Your task to perform on an android device: turn on showing notifications on the lock screen Image 0: 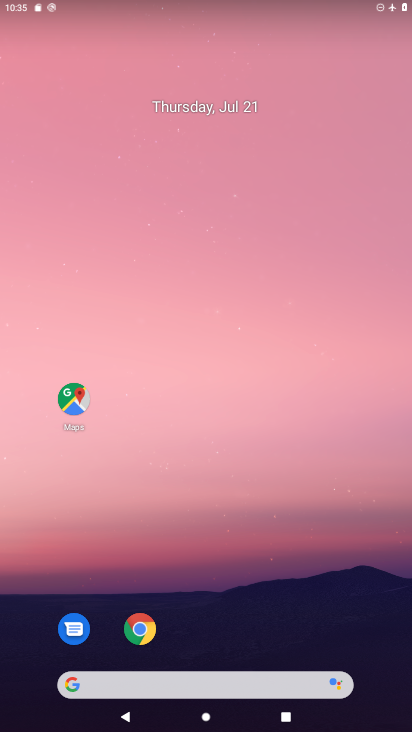
Step 0: drag from (209, 589) to (189, 85)
Your task to perform on an android device: turn on showing notifications on the lock screen Image 1: 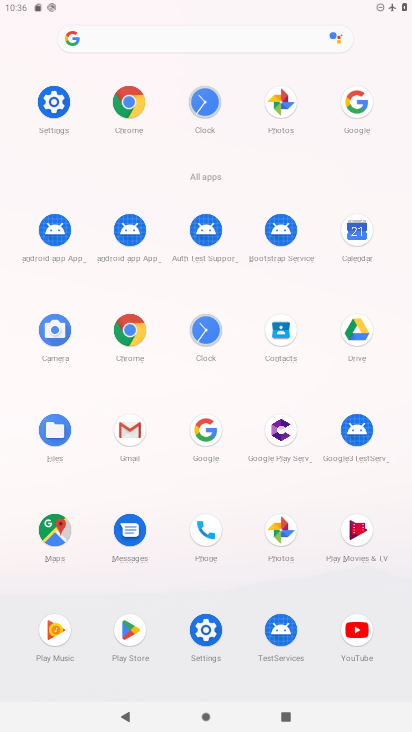
Step 1: click (52, 103)
Your task to perform on an android device: turn on showing notifications on the lock screen Image 2: 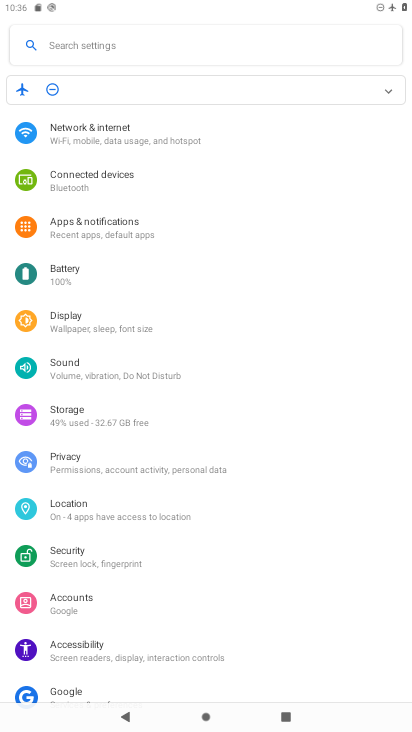
Step 2: click (81, 232)
Your task to perform on an android device: turn on showing notifications on the lock screen Image 3: 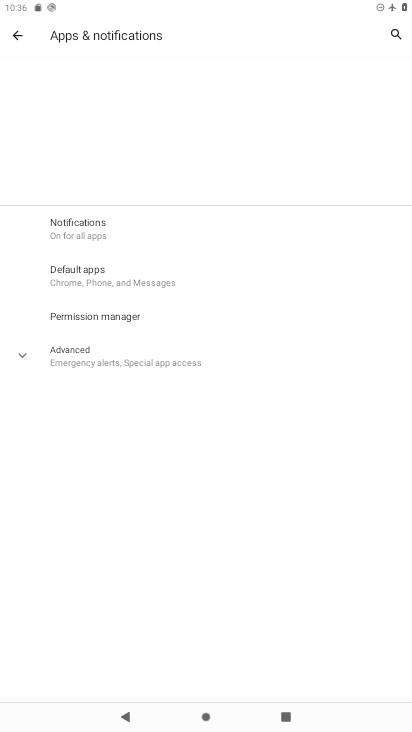
Step 3: click (79, 215)
Your task to perform on an android device: turn on showing notifications on the lock screen Image 4: 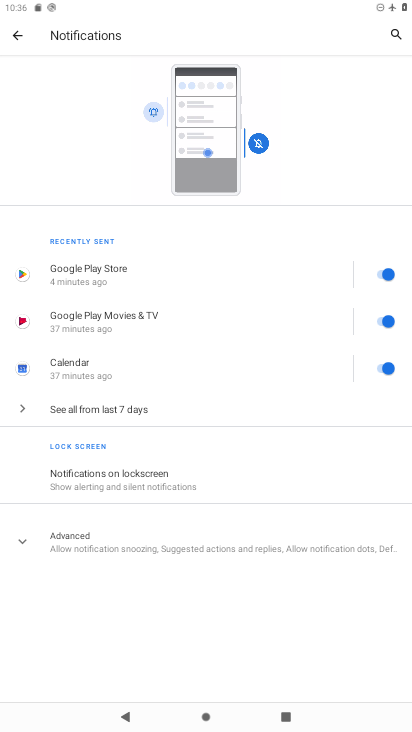
Step 4: click (126, 485)
Your task to perform on an android device: turn on showing notifications on the lock screen Image 5: 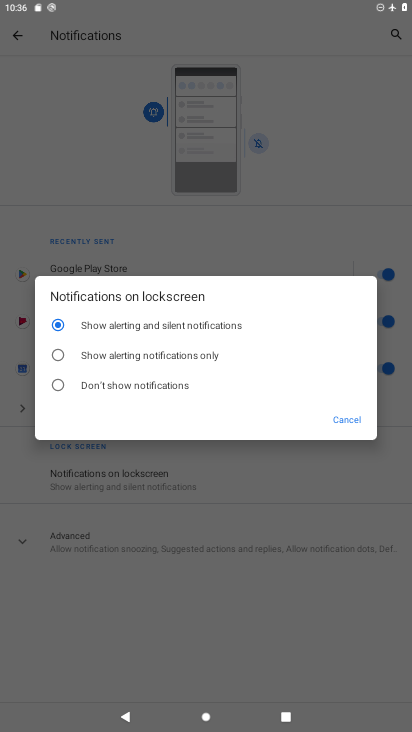
Step 5: task complete